Your task to perform on an android device: Open Google Maps and go to "Timeline" Image 0: 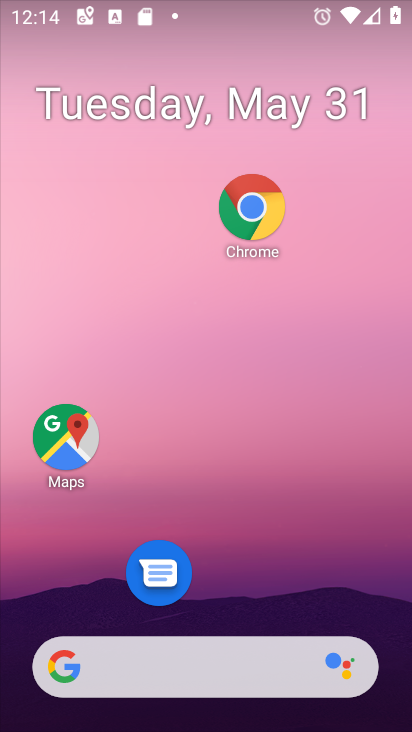
Step 0: drag from (241, 625) to (232, 85)
Your task to perform on an android device: Open Google Maps and go to "Timeline" Image 1: 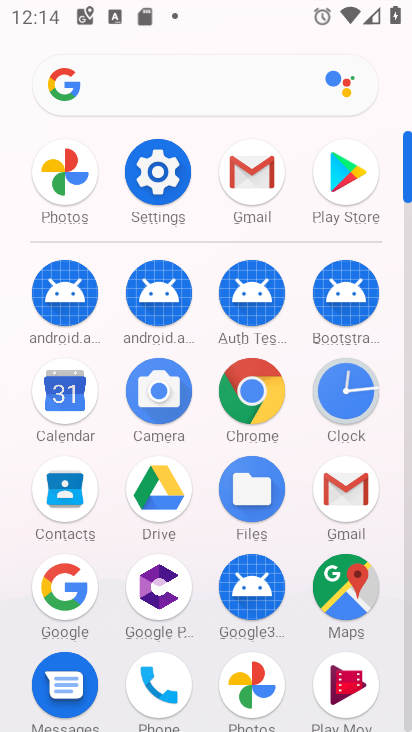
Step 1: click (340, 595)
Your task to perform on an android device: Open Google Maps and go to "Timeline" Image 2: 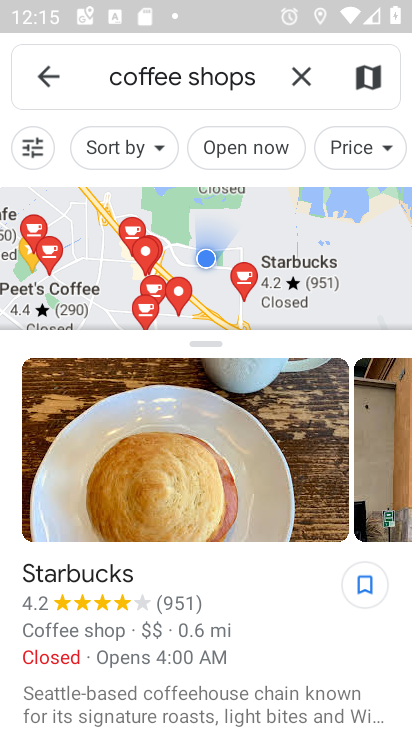
Step 2: click (41, 56)
Your task to perform on an android device: Open Google Maps and go to "Timeline" Image 3: 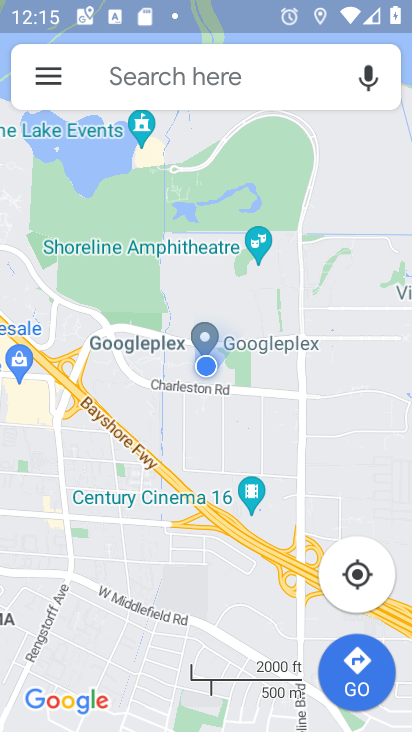
Step 3: click (46, 82)
Your task to perform on an android device: Open Google Maps and go to "Timeline" Image 4: 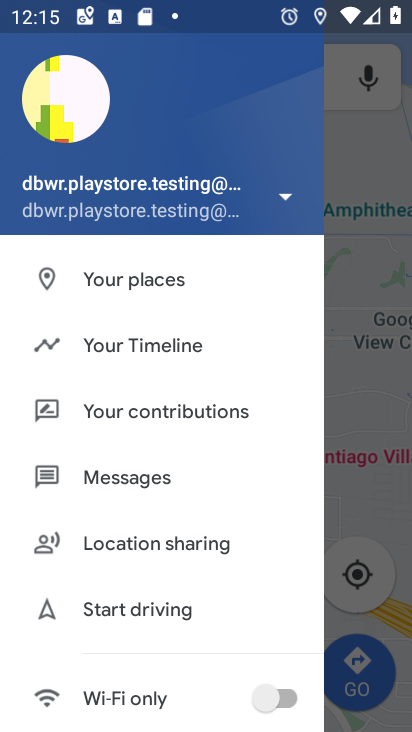
Step 4: click (155, 345)
Your task to perform on an android device: Open Google Maps and go to "Timeline" Image 5: 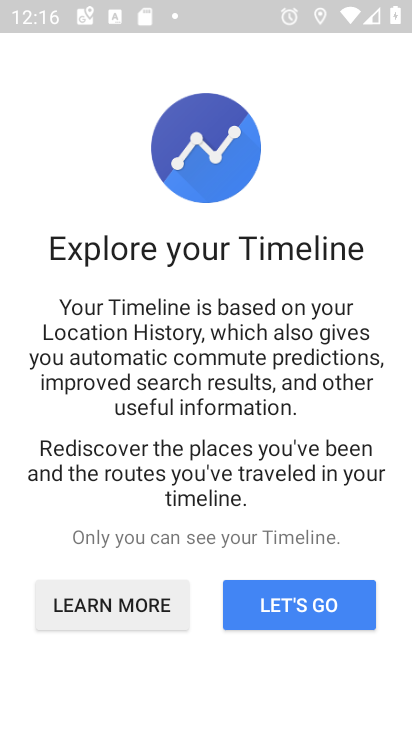
Step 5: click (286, 605)
Your task to perform on an android device: Open Google Maps and go to "Timeline" Image 6: 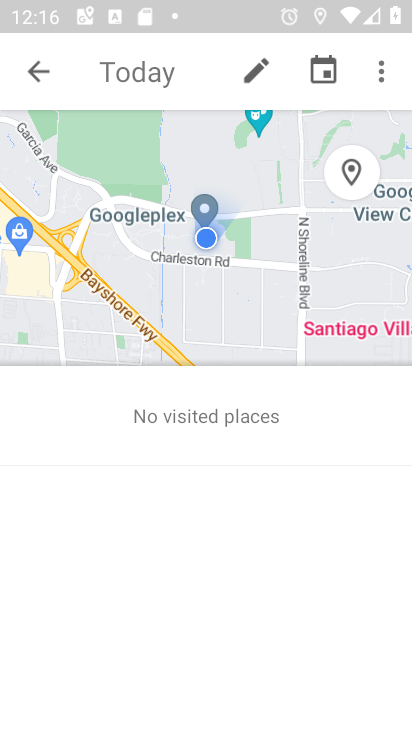
Step 6: task complete